Your task to perform on an android device: What's the weather going to be this weekend? Image 0: 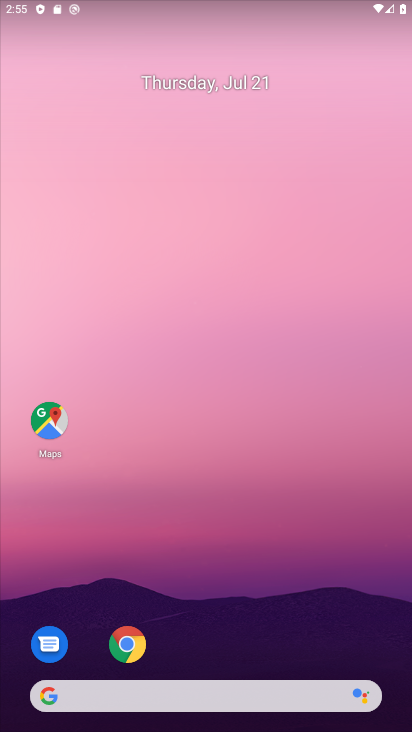
Step 0: drag from (217, 458) to (215, 269)
Your task to perform on an android device: What's the weather going to be this weekend? Image 1: 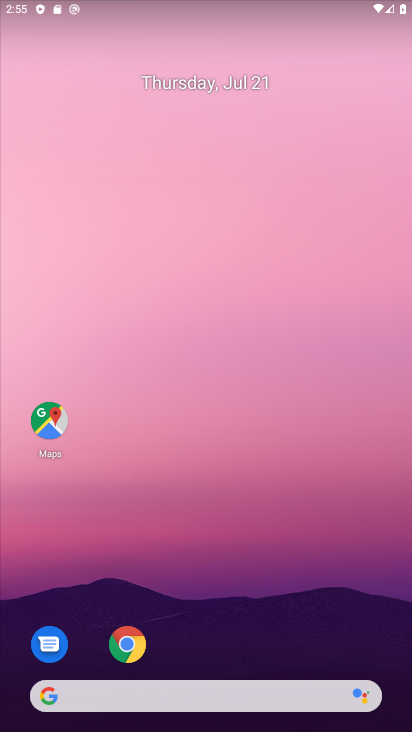
Step 1: drag from (263, 572) to (184, 209)
Your task to perform on an android device: What's the weather going to be this weekend? Image 2: 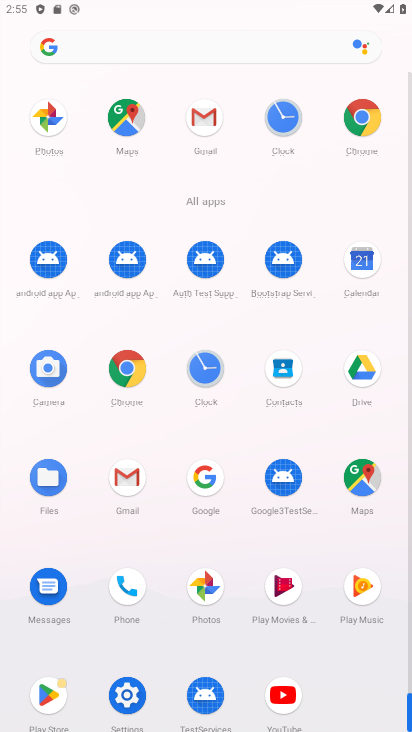
Step 2: click (359, 246)
Your task to perform on an android device: What's the weather going to be this weekend? Image 3: 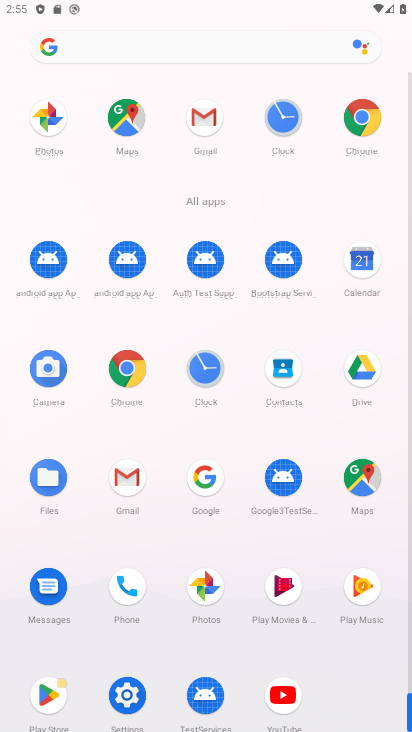
Step 3: click (359, 246)
Your task to perform on an android device: What's the weather going to be this weekend? Image 4: 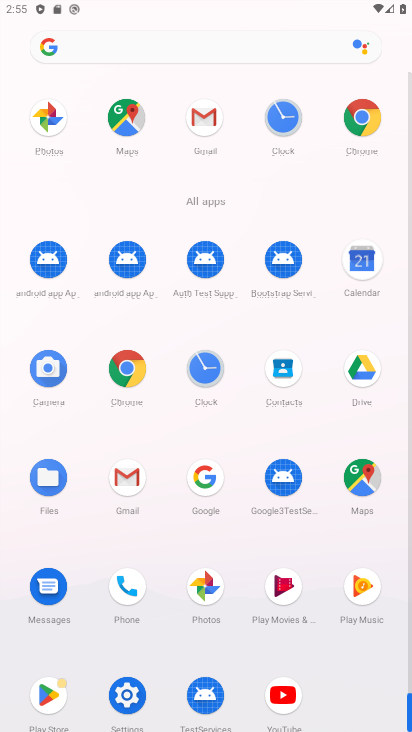
Step 4: click (360, 248)
Your task to perform on an android device: What's the weather going to be this weekend? Image 5: 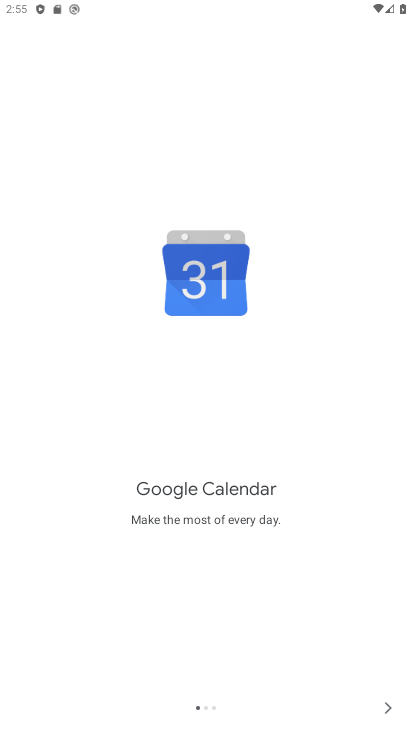
Step 5: click (384, 707)
Your task to perform on an android device: What's the weather going to be this weekend? Image 6: 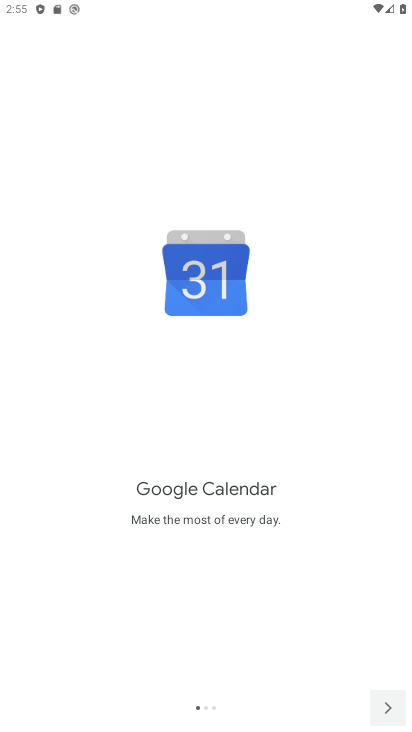
Step 6: click (387, 699)
Your task to perform on an android device: What's the weather going to be this weekend? Image 7: 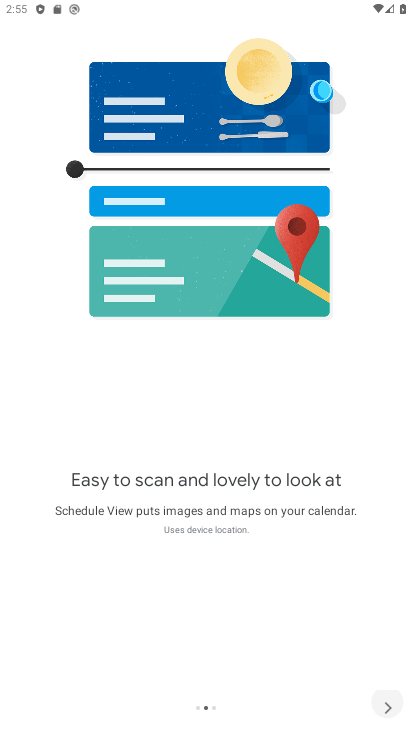
Step 7: click (387, 699)
Your task to perform on an android device: What's the weather going to be this weekend? Image 8: 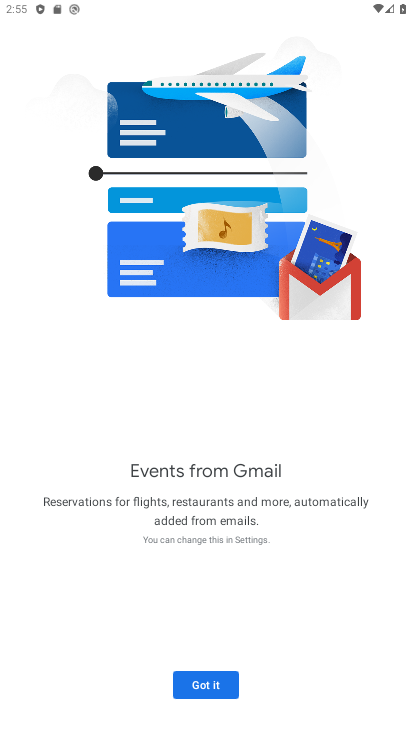
Step 8: click (229, 672)
Your task to perform on an android device: What's the weather going to be this weekend? Image 9: 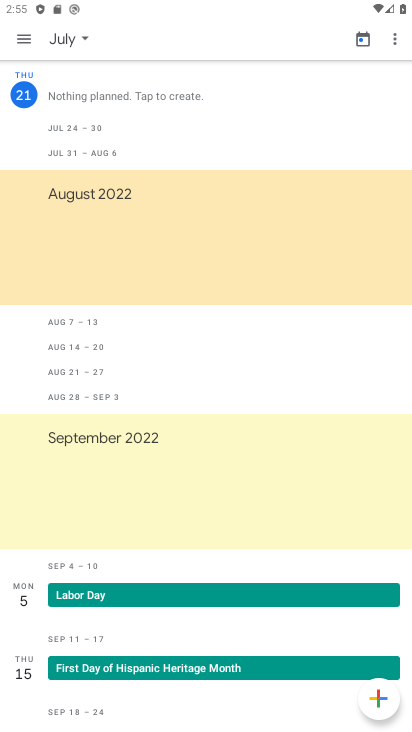
Step 9: click (94, 36)
Your task to perform on an android device: What's the weather going to be this weekend? Image 10: 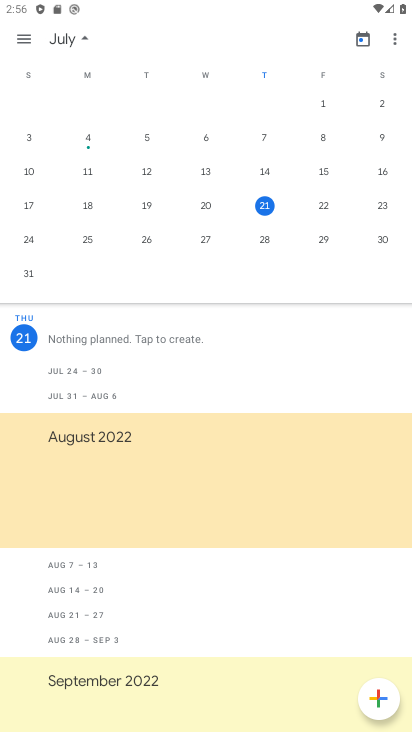
Step 10: press back button
Your task to perform on an android device: What's the weather going to be this weekend? Image 11: 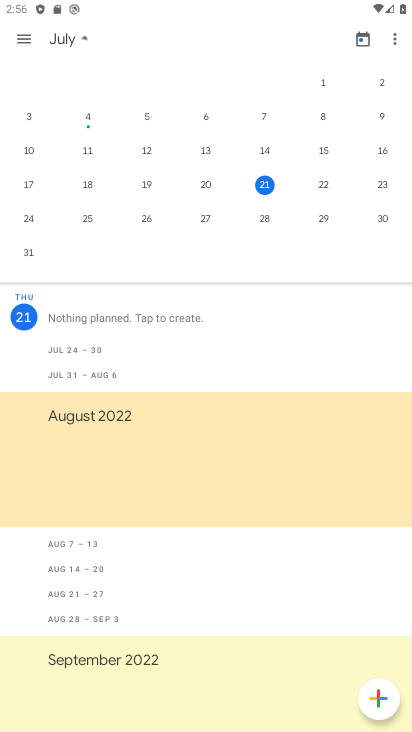
Step 11: press back button
Your task to perform on an android device: What's the weather going to be this weekend? Image 12: 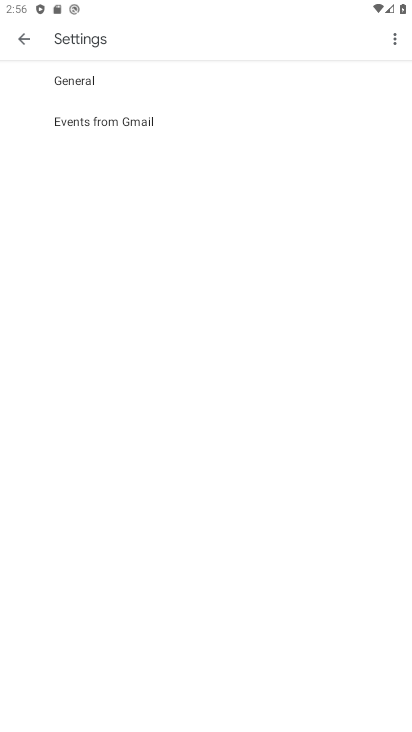
Step 12: click (19, 35)
Your task to perform on an android device: What's the weather going to be this weekend? Image 13: 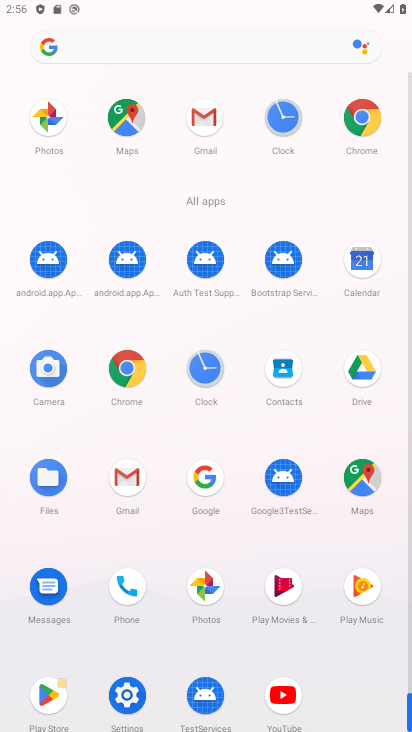
Step 13: click (364, 118)
Your task to perform on an android device: What's the weather going to be this weekend? Image 14: 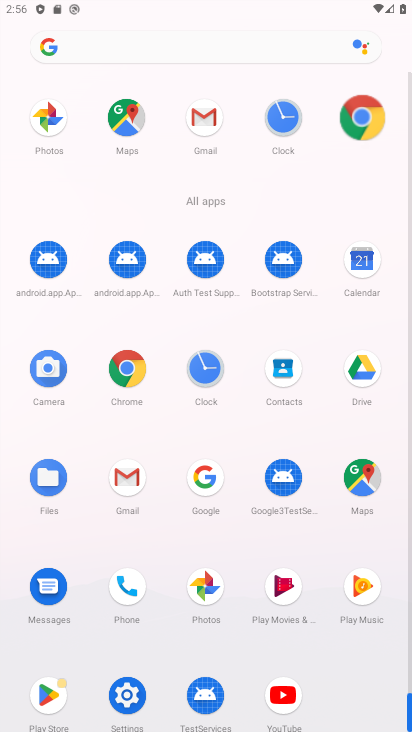
Step 14: click (364, 120)
Your task to perform on an android device: What's the weather going to be this weekend? Image 15: 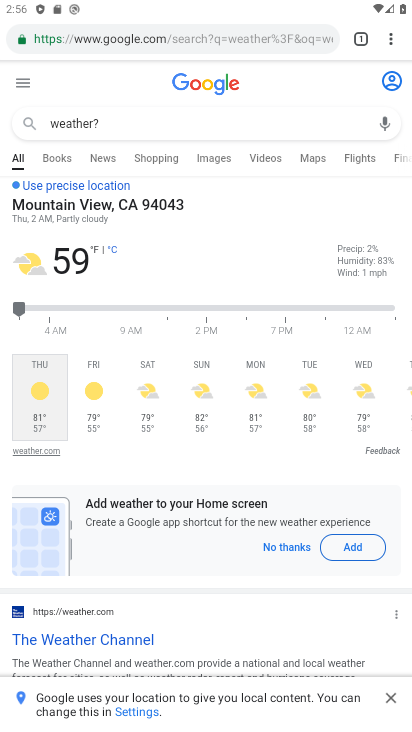
Step 15: task complete